Your task to perform on an android device: Go to calendar. Show me events next week Image 0: 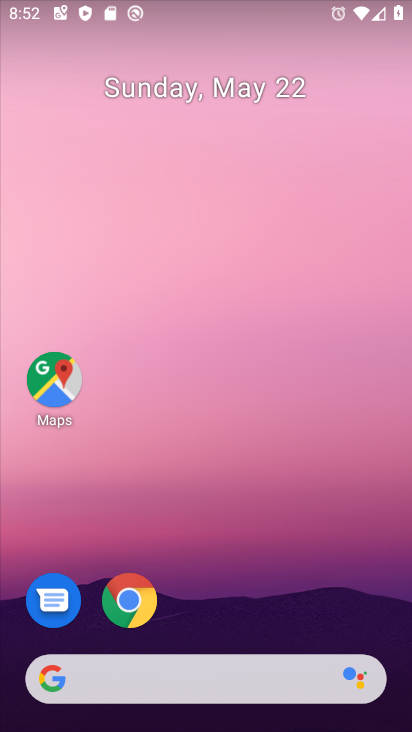
Step 0: drag from (231, 626) to (258, 186)
Your task to perform on an android device: Go to calendar. Show me events next week Image 1: 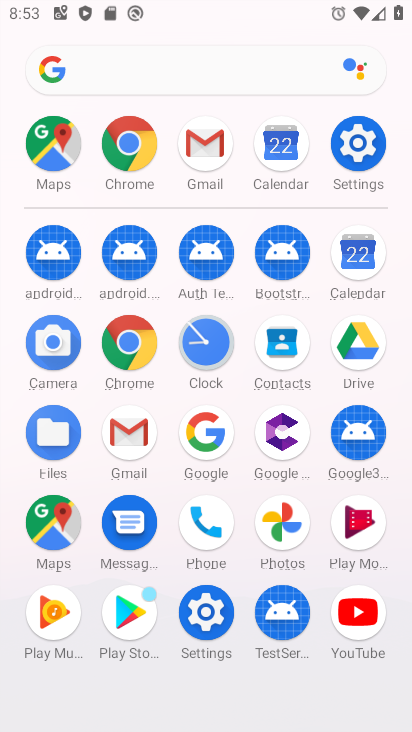
Step 1: click (371, 254)
Your task to perform on an android device: Go to calendar. Show me events next week Image 2: 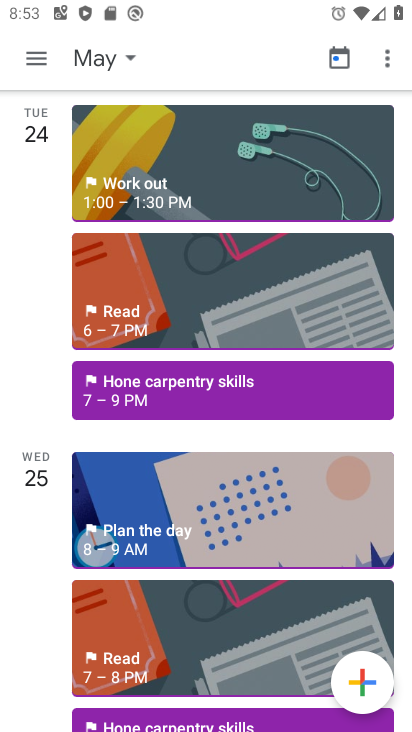
Step 2: click (110, 57)
Your task to perform on an android device: Go to calendar. Show me events next week Image 3: 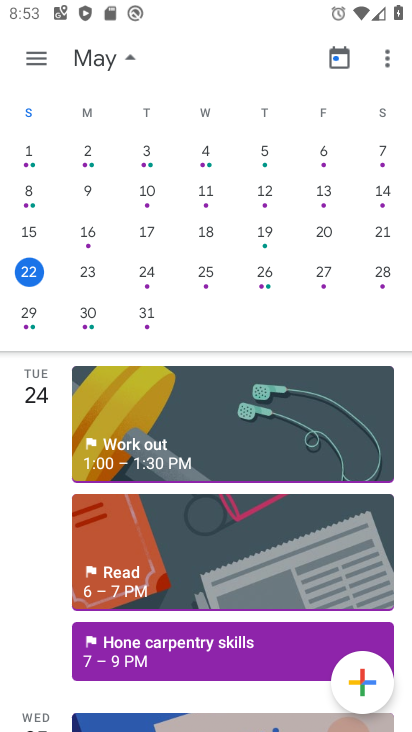
Step 3: click (29, 327)
Your task to perform on an android device: Go to calendar. Show me events next week Image 4: 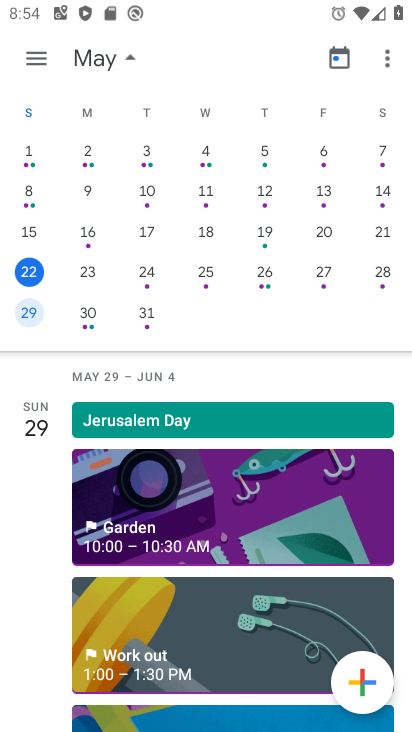
Step 4: task complete